Your task to perform on an android device: Is it going to rain this weekend? Image 0: 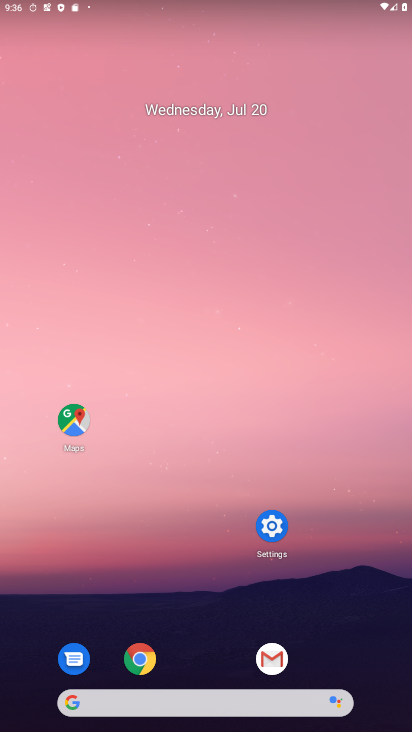
Step 0: click (203, 701)
Your task to perform on an android device: Is it going to rain this weekend? Image 1: 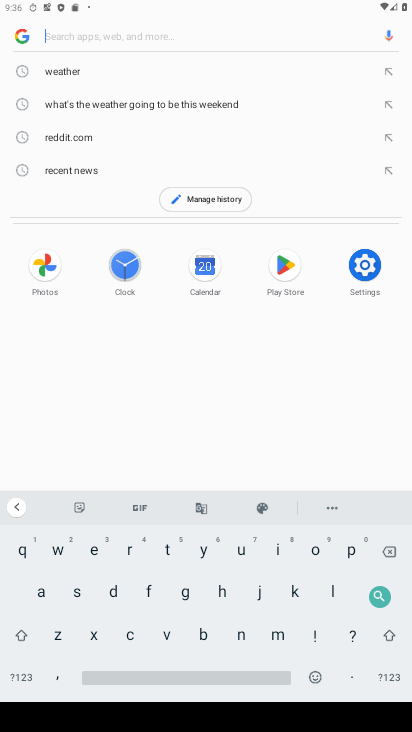
Step 1: click (175, 104)
Your task to perform on an android device: Is it going to rain this weekend? Image 2: 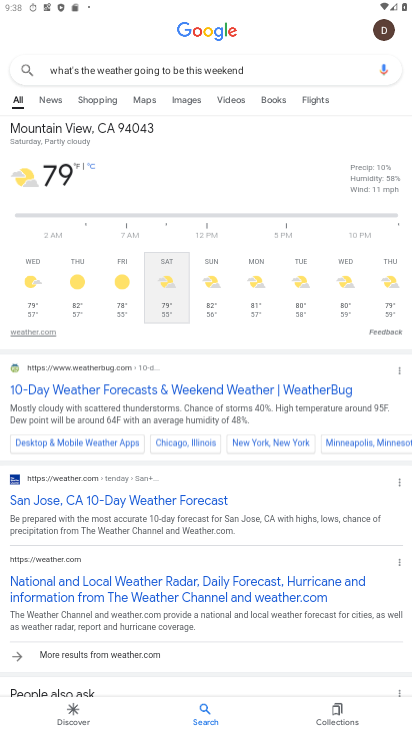
Step 2: task complete